Your task to perform on an android device: Open the map Image 0: 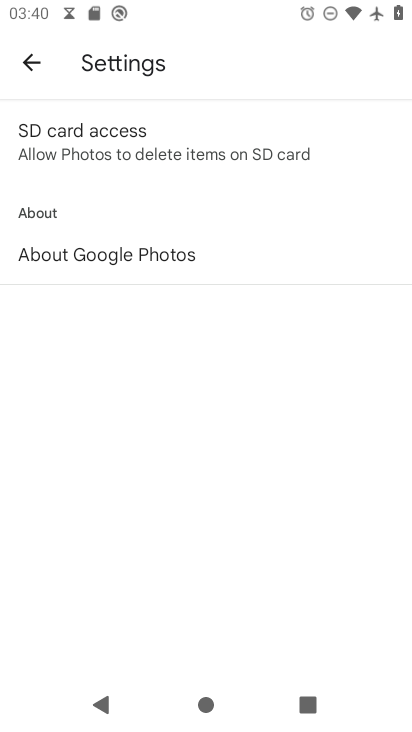
Step 0: press home button
Your task to perform on an android device: Open the map Image 1: 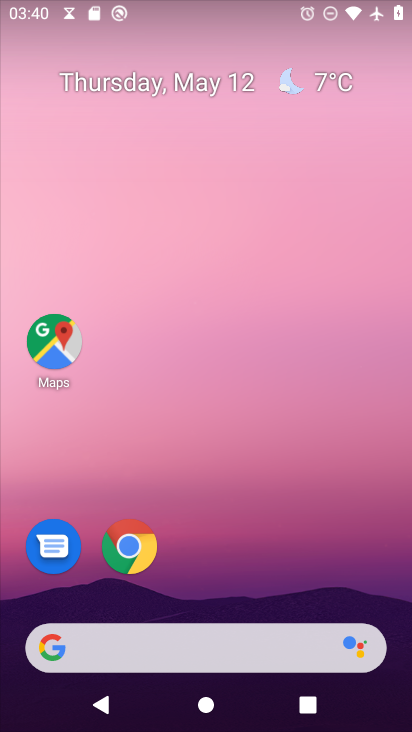
Step 1: click (59, 355)
Your task to perform on an android device: Open the map Image 2: 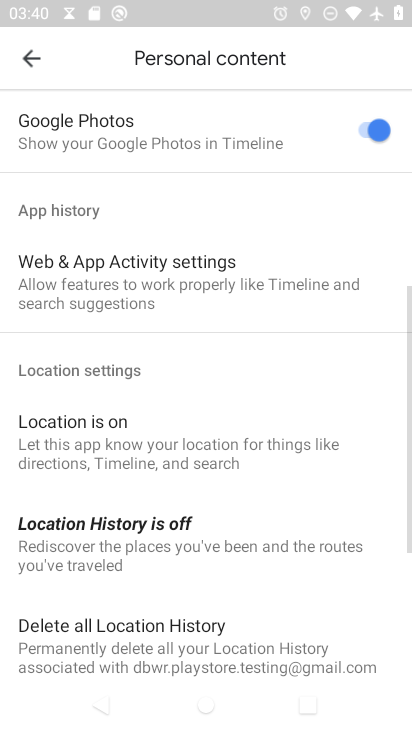
Step 2: click (28, 54)
Your task to perform on an android device: Open the map Image 3: 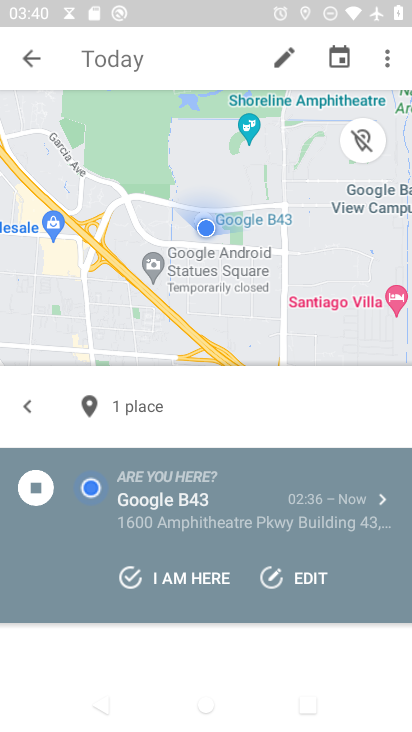
Step 3: click (30, 60)
Your task to perform on an android device: Open the map Image 4: 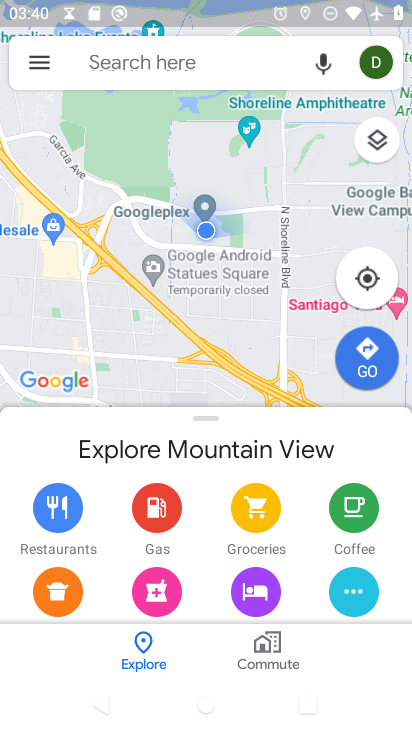
Step 4: task complete